Your task to perform on an android device: What's on my calendar today? Image 0: 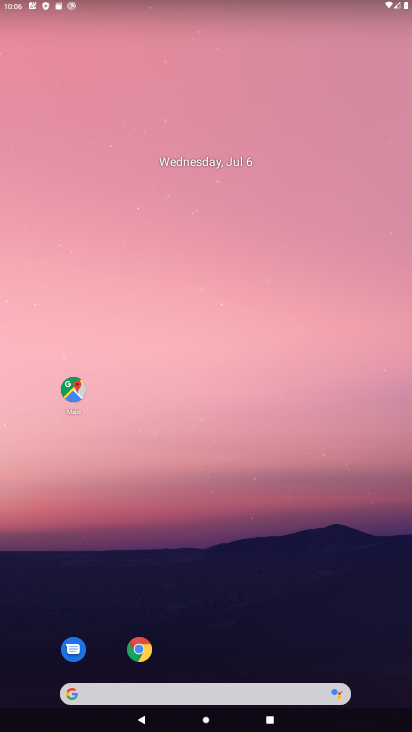
Step 0: drag from (199, 696) to (220, 384)
Your task to perform on an android device: What's on my calendar today? Image 1: 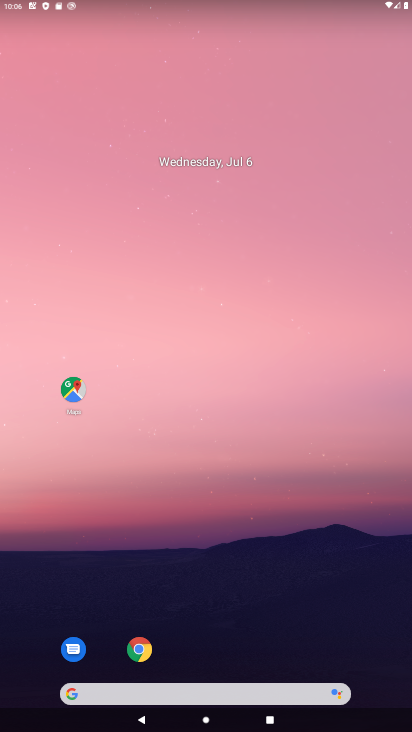
Step 1: drag from (208, 691) to (251, 149)
Your task to perform on an android device: What's on my calendar today? Image 2: 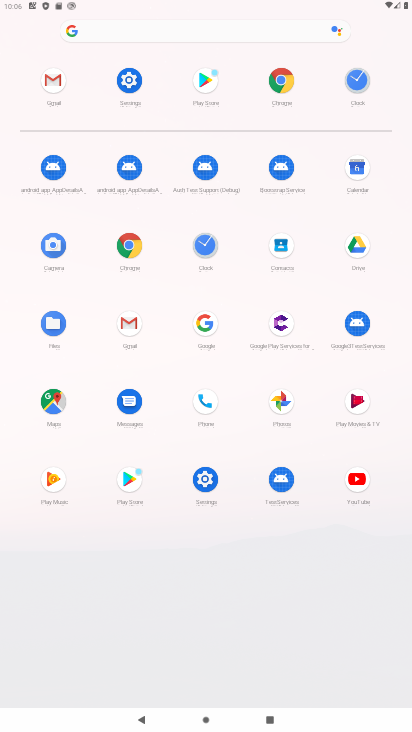
Step 2: click (359, 163)
Your task to perform on an android device: What's on my calendar today? Image 3: 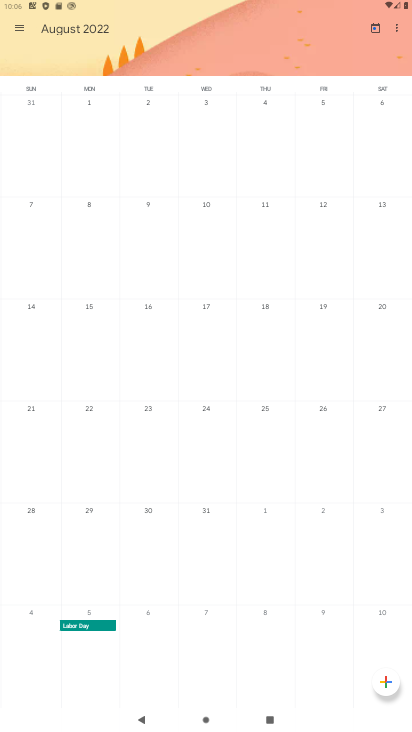
Step 3: press home button
Your task to perform on an android device: What's on my calendar today? Image 4: 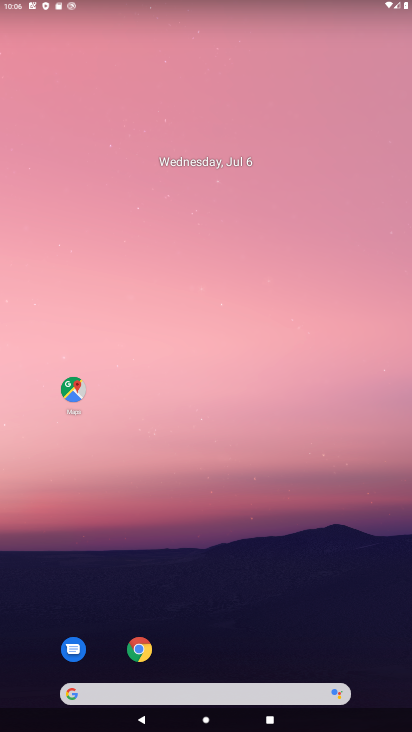
Step 4: drag from (191, 690) to (272, 201)
Your task to perform on an android device: What's on my calendar today? Image 5: 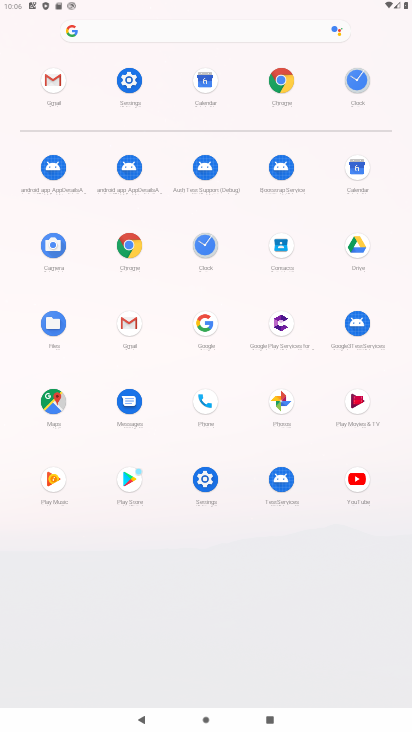
Step 5: click (364, 174)
Your task to perform on an android device: What's on my calendar today? Image 6: 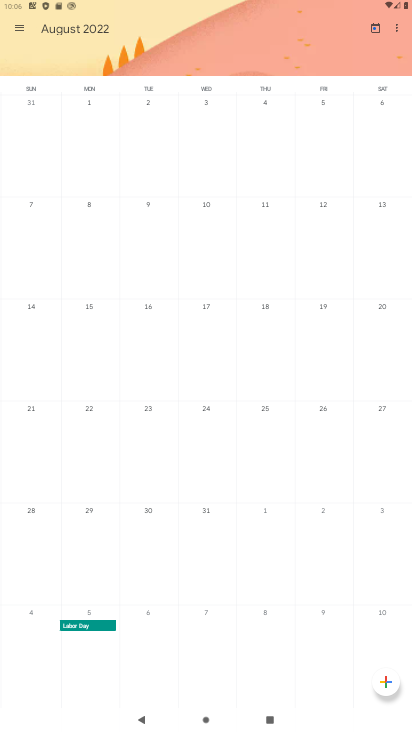
Step 6: click (19, 27)
Your task to perform on an android device: What's on my calendar today? Image 7: 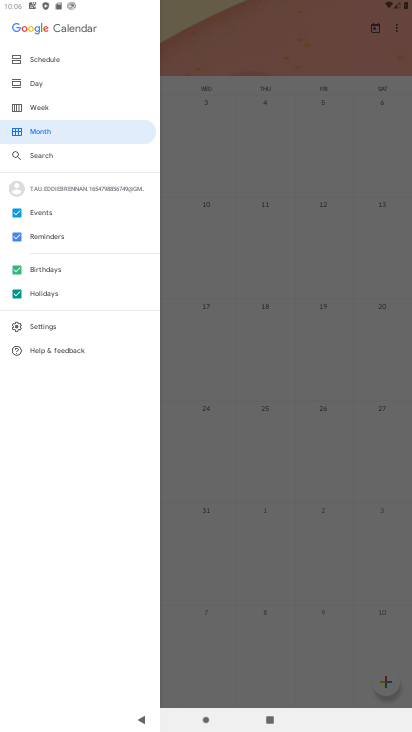
Step 7: click (26, 55)
Your task to perform on an android device: What's on my calendar today? Image 8: 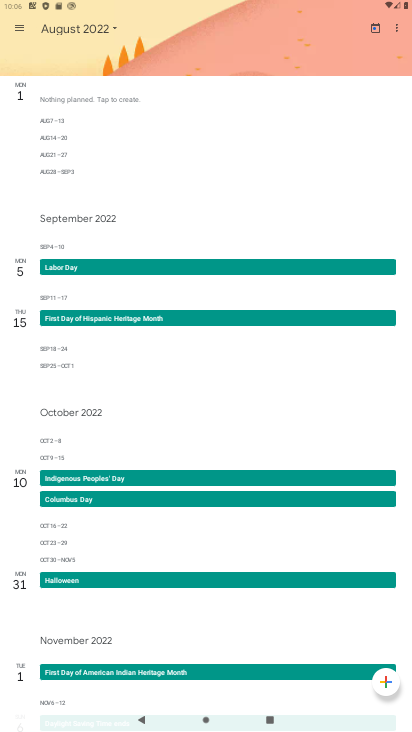
Step 8: click (105, 31)
Your task to perform on an android device: What's on my calendar today? Image 9: 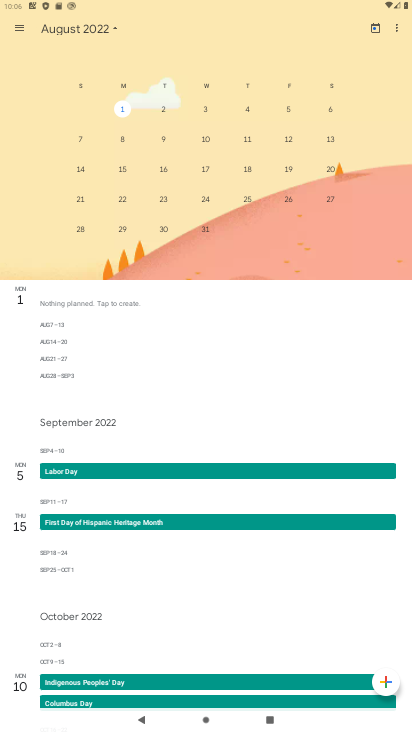
Step 9: drag from (83, 210) to (318, 194)
Your task to perform on an android device: What's on my calendar today? Image 10: 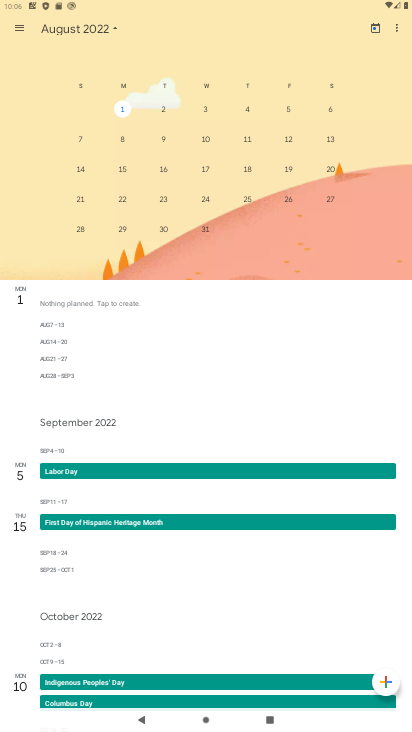
Step 10: drag from (116, 185) to (341, 166)
Your task to perform on an android device: What's on my calendar today? Image 11: 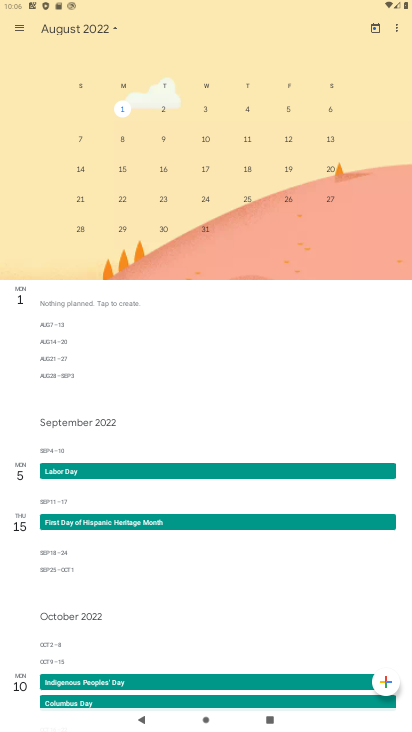
Step 11: click (341, 166)
Your task to perform on an android device: What's on my calendar today? Image 12: 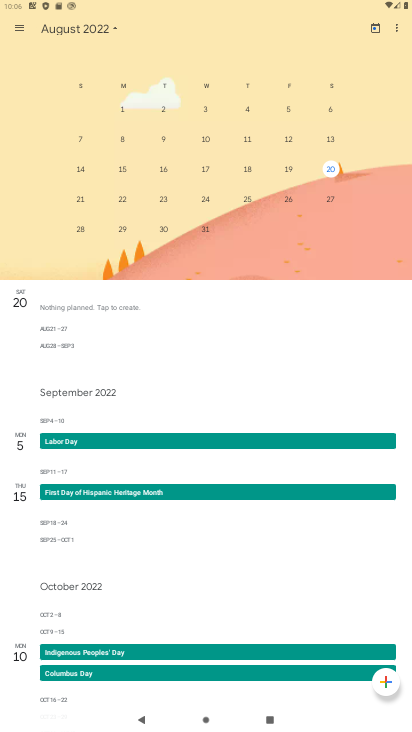
Step 12: drag from (114, 203) to (378, 176)
Your task to perform on an android device: What's on my calendar today? Image 13: 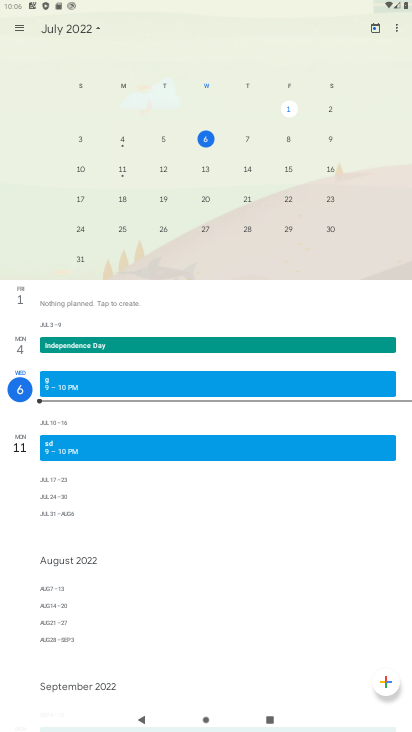
Step 13: click (378, 176)
Your task to perform on an android device: What's on my calendar today? Image 14: 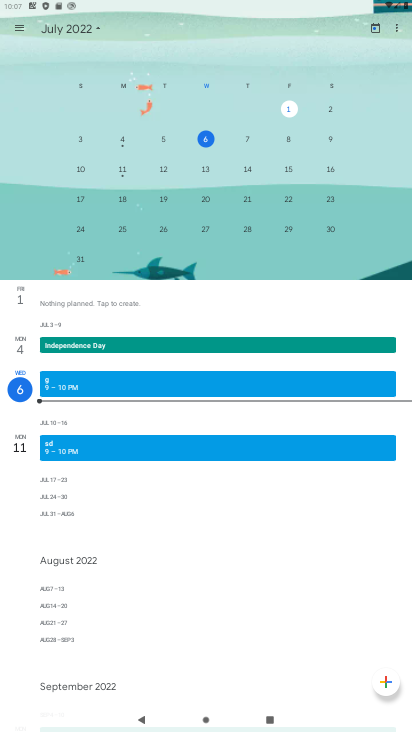
Step 14: click (378, 176)
Your task to perform on an android device: What's on my calendar today? Image 15: 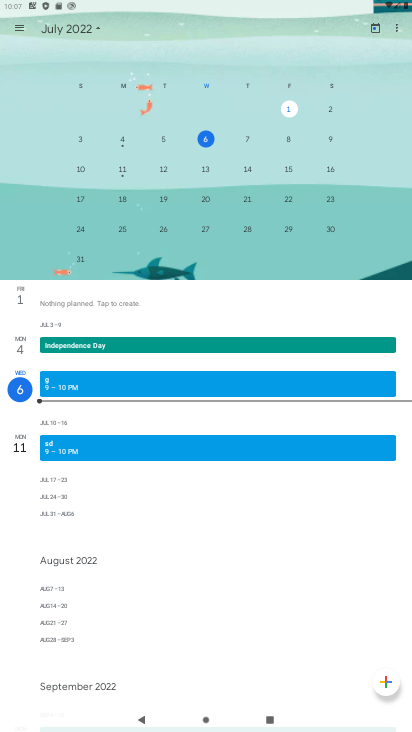
Step 15: click (209, 144)
Your task to perform on an android device: What's on my calendar today? Image 16: 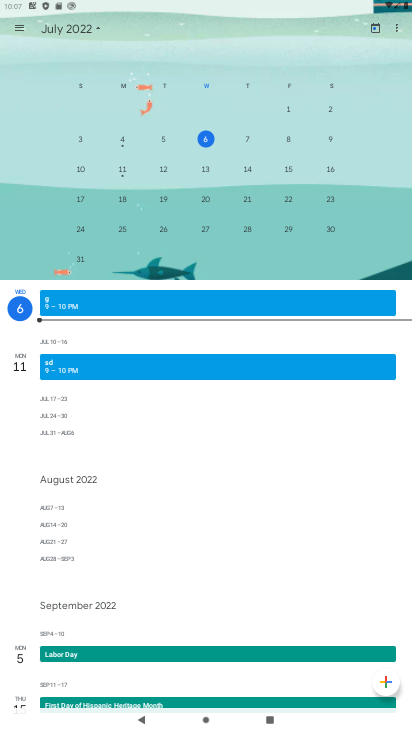
Step 16: click (102, 19)
Your task to perform on an android device: What's on my calendar today? Image 17: 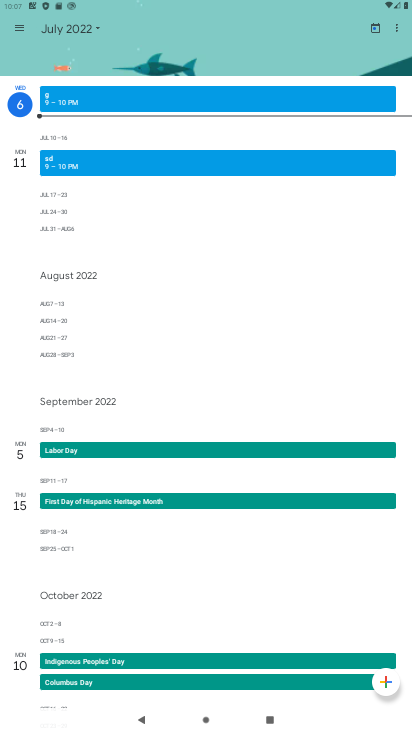
Step 17: task complete